Your task to perform on an android device: find snoozed emails in the gmail app Image 0: 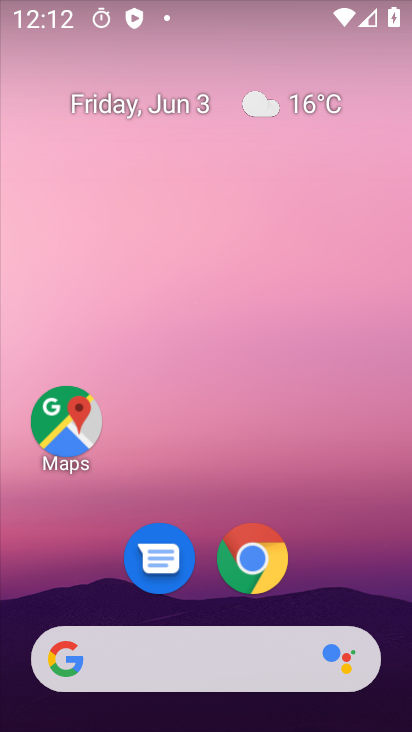
Step 0: drag from (363, 578) to (352, 185)
Your task to perform on an android device: find snoozed emails in the gmail app Image 1: 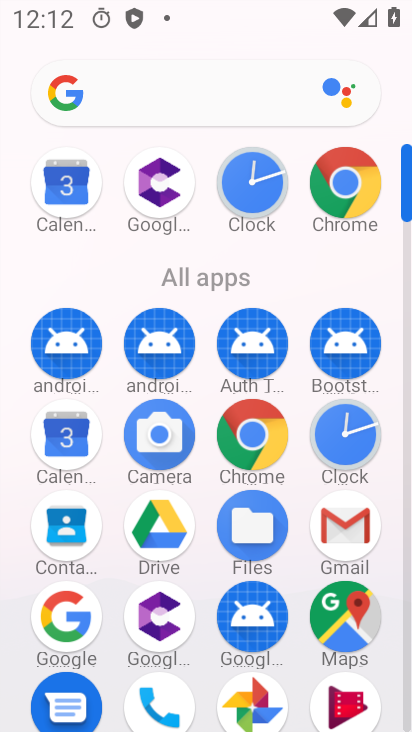
Step 1: click (351, 522)
Your task to perform on an android device: find snoozed emails in the gmail app Image 2: 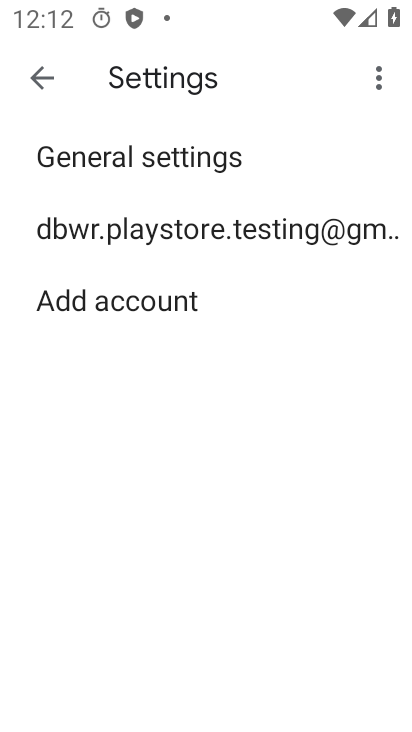
Step 2: press back button
Your task to perform on an android device: find snoozed emails in the gmail app Image 3: 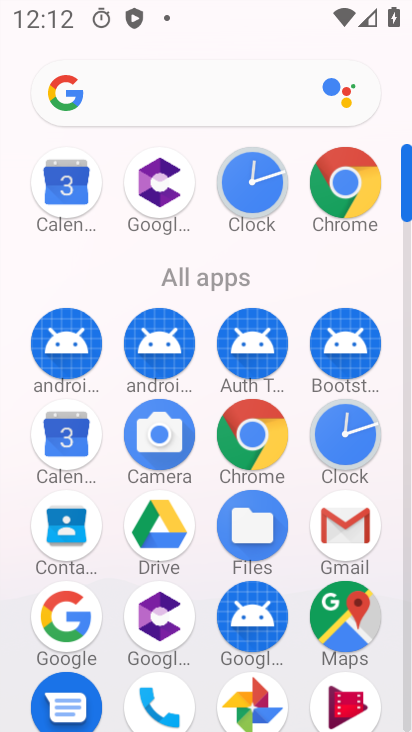
Step 3: click (369, 526)
Your task to perform on an android device: find snoozed emails in the gmail app Image 4: 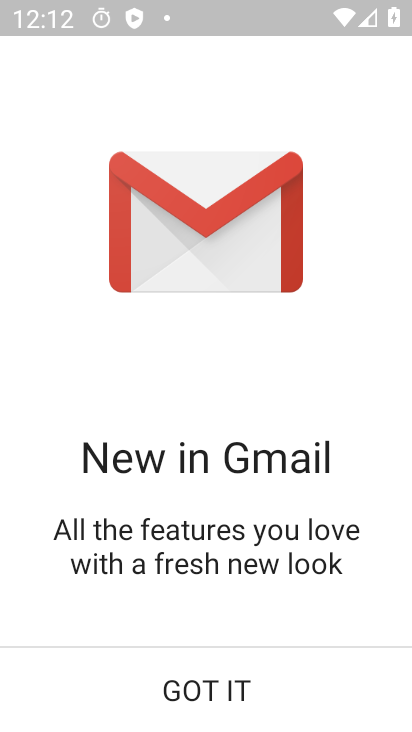
Step 4: click (242, 678)
Your task to perform on an android device: find snoozed emails in the gmail app Image 5: 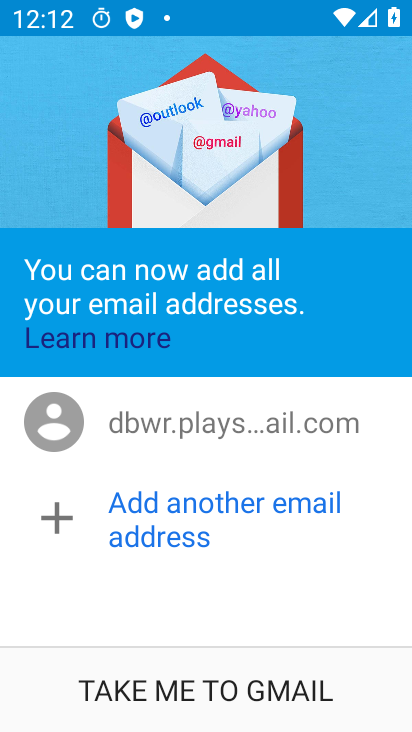
Step 5: click (242, 678)
Your task to perform on an android device: find snoozed emails in the gmail app Image 6: 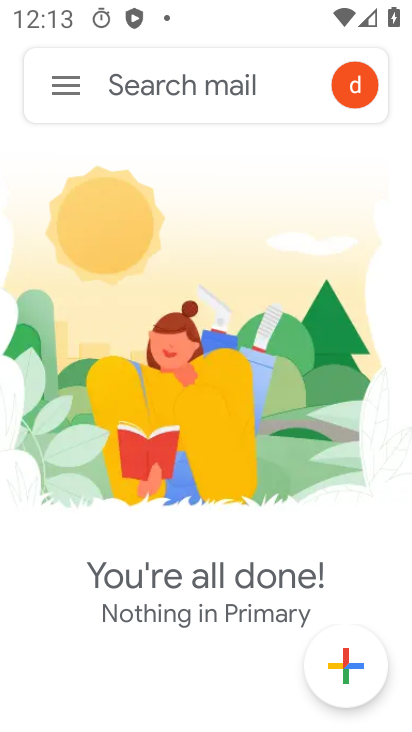
Step 6: click (63, 98)
Your task to perform on an android device: find snoozed emails in the gmail app Image 7: 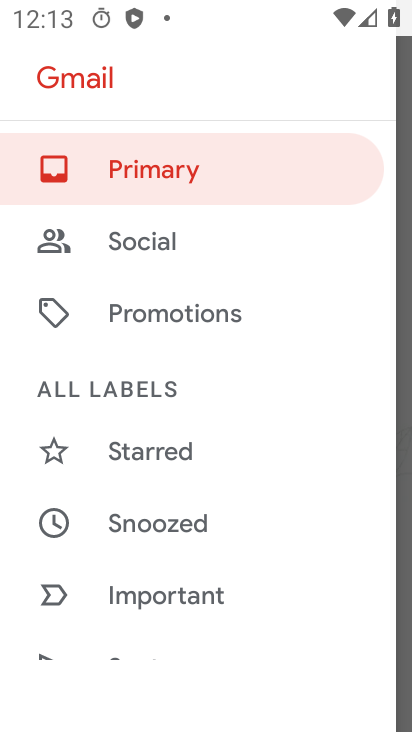
Step 7: click (179, 519)
Your task to perform on an android device: find snoozed emails in the gmail app Image 8: 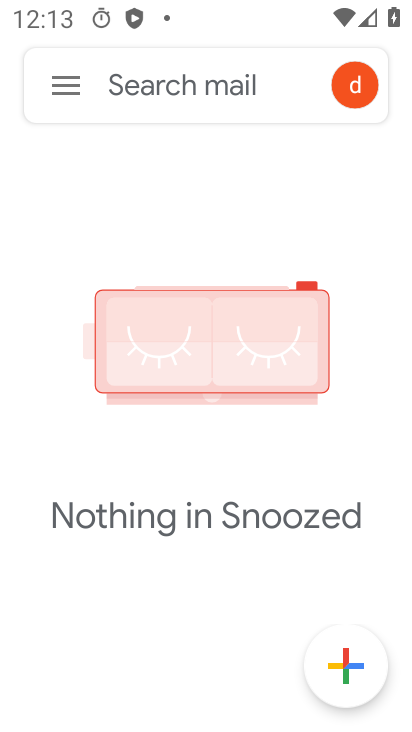
Step 8: task complete